Your task to perform on an android device: toggle notification dots Image 0: 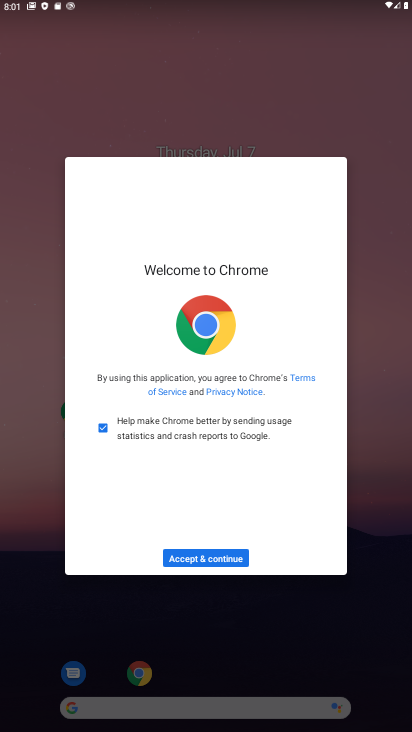
Step 0: press home button
Your task to perform on an android device: toggle notification dots Image 1: 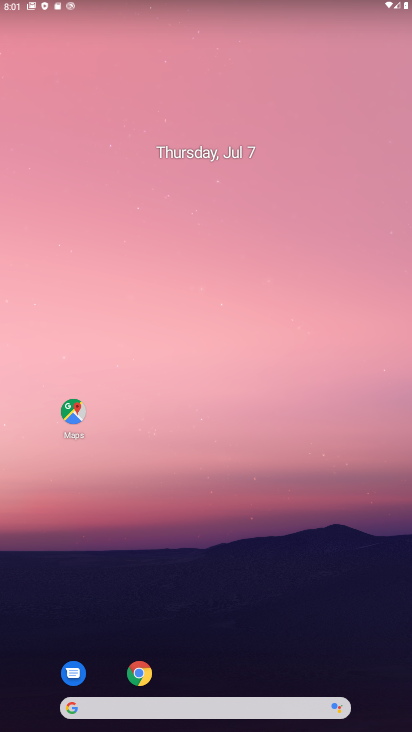
Step 1: drag from (376, 694) to (259, 75)
Your task to perform on an android device: toggle notification dots Image 2: 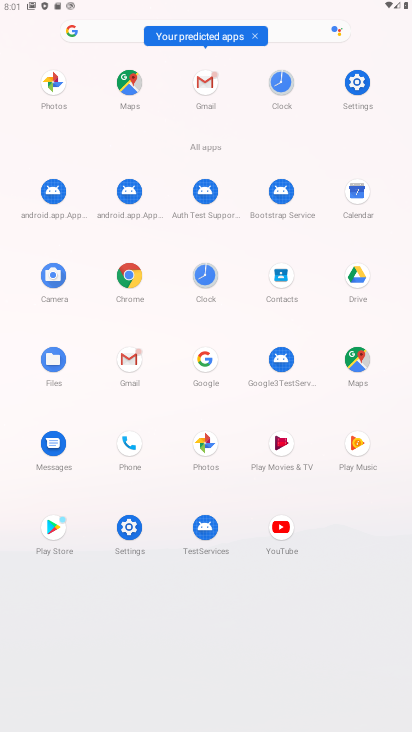
Step 2: click (376, 74)
Your task to perform on an android device: toggle notification dots Image 3: 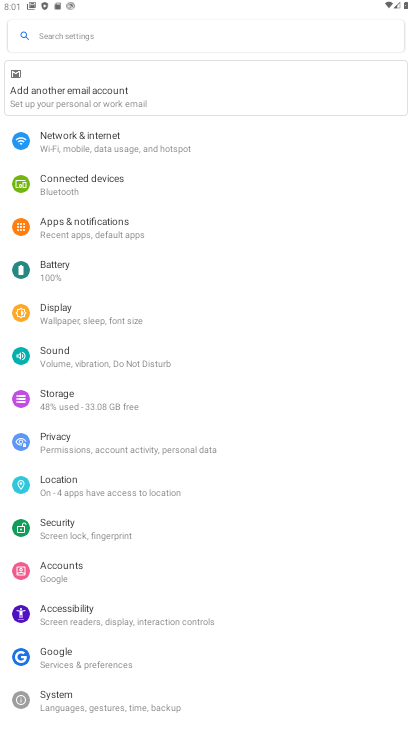
Step 3: click (60, 224)
Your task to perform on an android device: toggle notification dots Image 4: 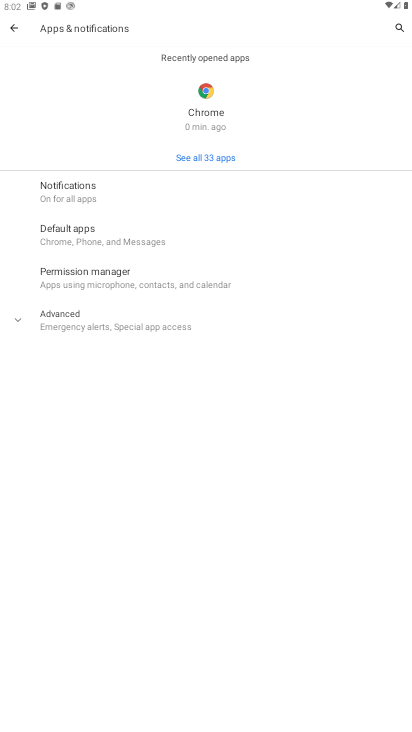
Step 4: click (69, 194)
Your task to perform on an android device: toggle notification dots Image 5: 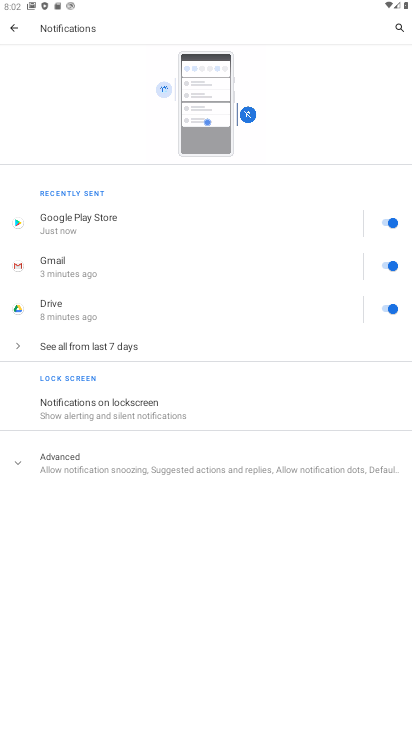
Step 5: click (24, 462)
Your task to perform on an android device: toggle notification dots Image 6: 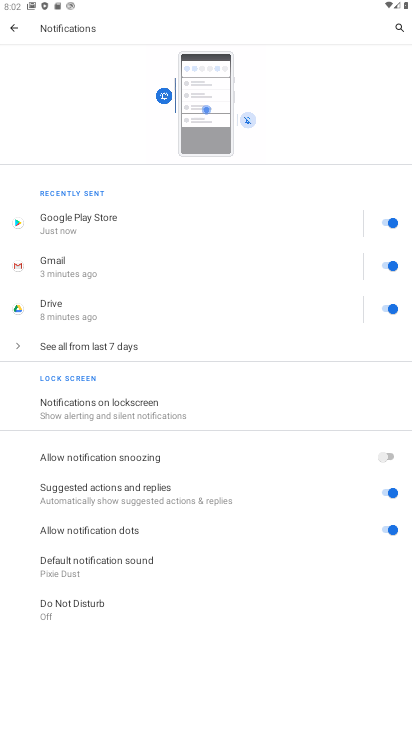
Step 6: click (393, 530)
Your task to perform on an android device: toggle notification dots Image 7: 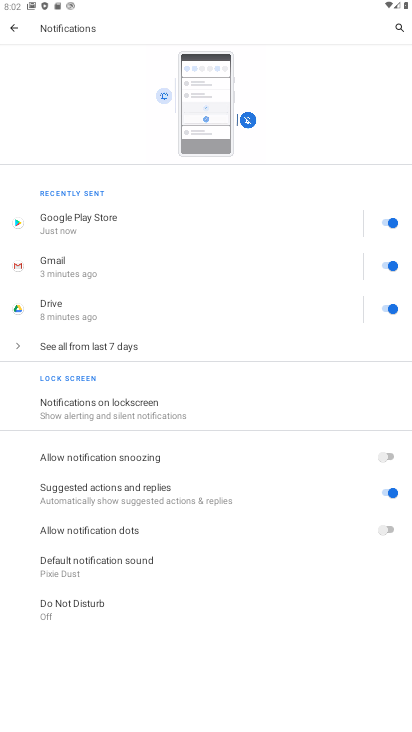
Step 7: task complete